Your task to perform on an android device: open app "Booking.com: Hotels and more" Image 0: 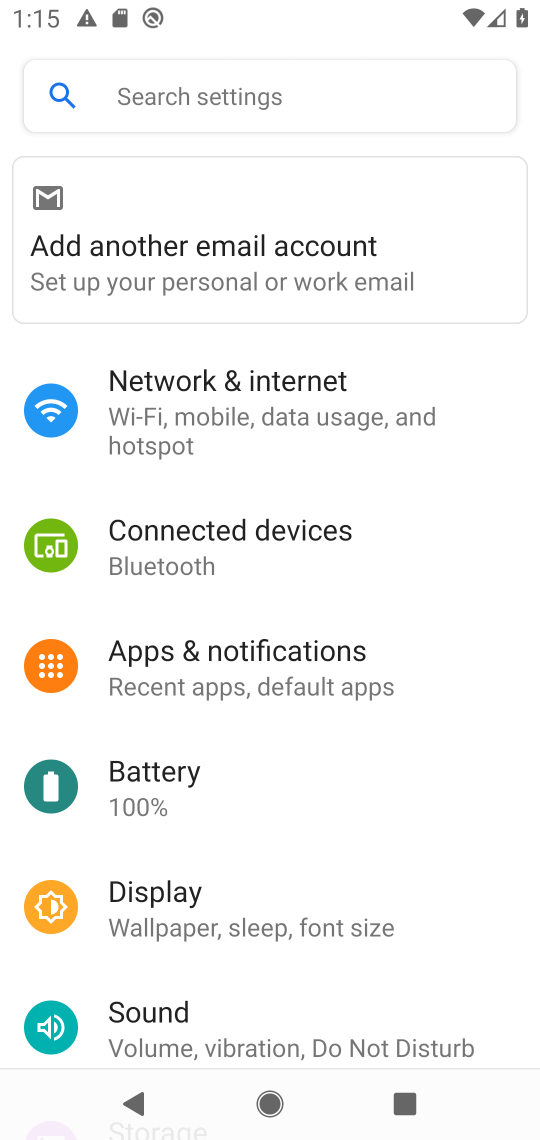
Step 0: press back button
Your task to perform on an android device: open app "Booking.com: Hotels and more" Image 1: 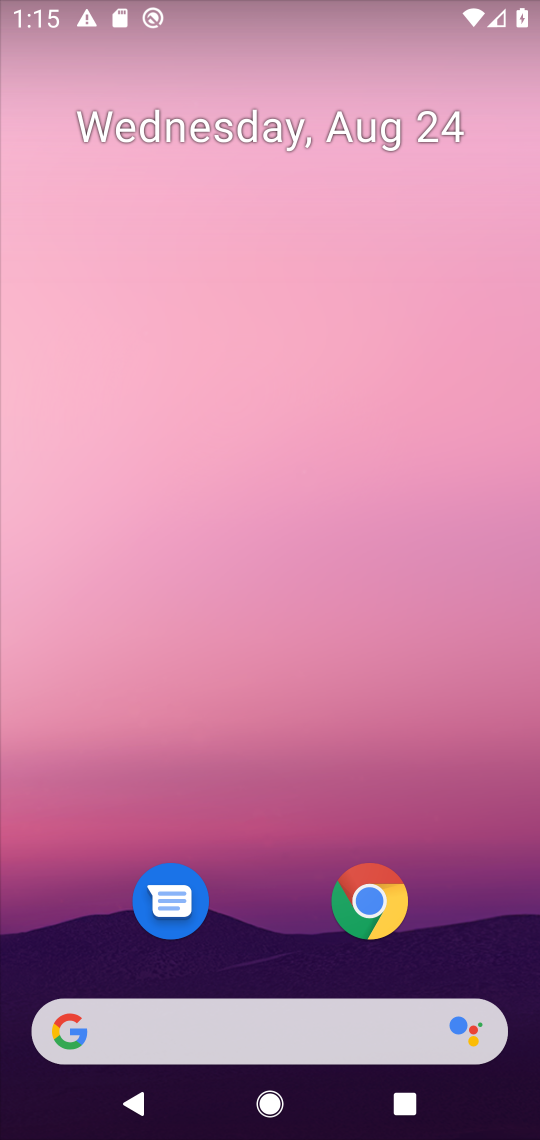
Step 1: drag from (285, 924) to (321, 25)
Your task to perform on an android device: open app "Booking.com: Hotels and more" Image 2: 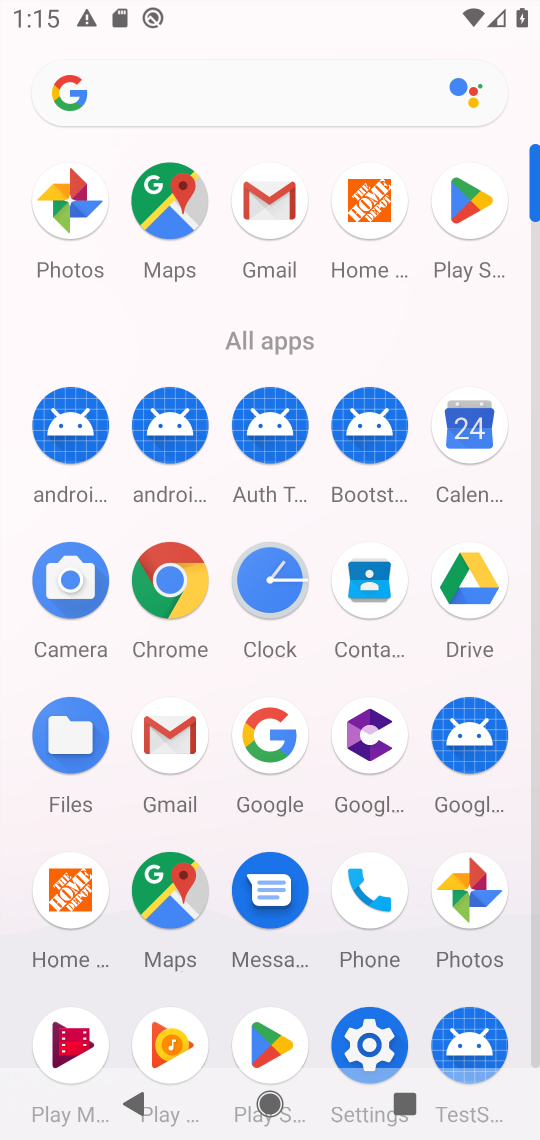
Step 2: click (463, 194)
Your task to perform on an android device: open app "Booking.com: Hotels and more" Image 3: 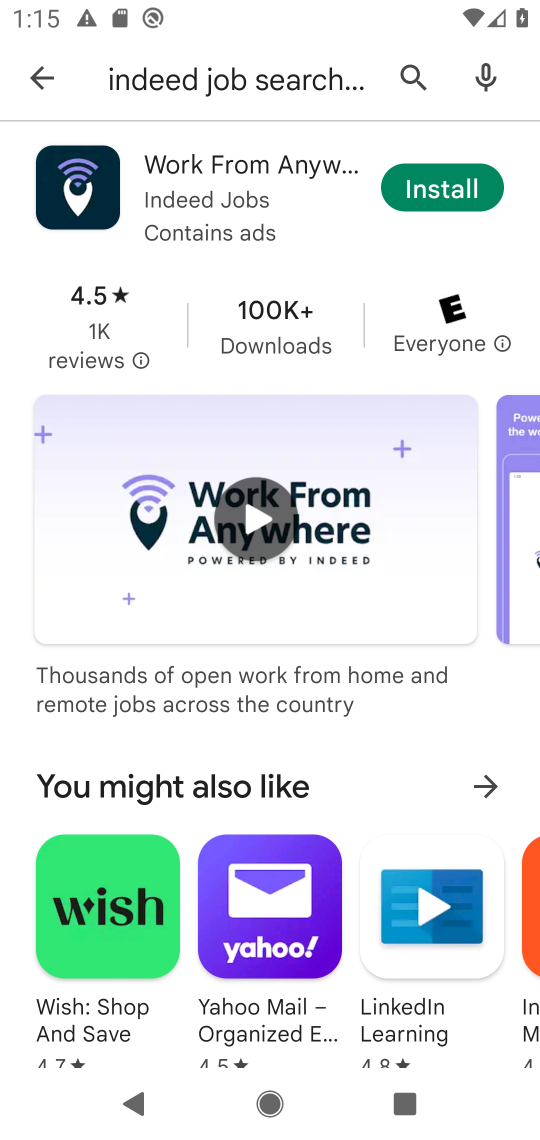
Step 3: click (420, 61)
Your task to perform on an android device: open app "Booking.com: Hotels and more" Image 4: 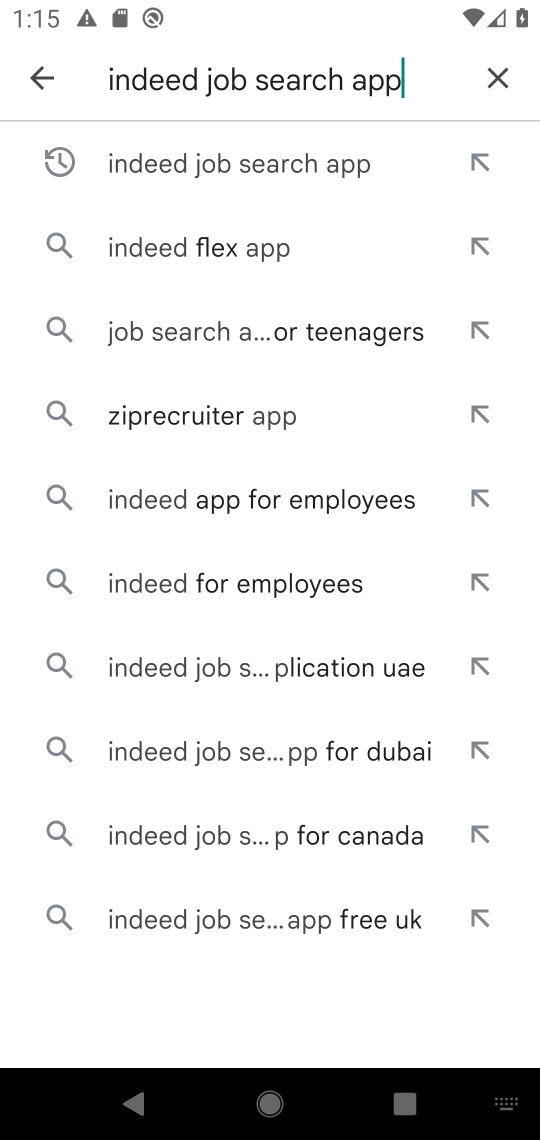
Step 4: click (497, 76)
Your task to perform on an android device: open app "Booking.com: Hotels and more" Image 5: 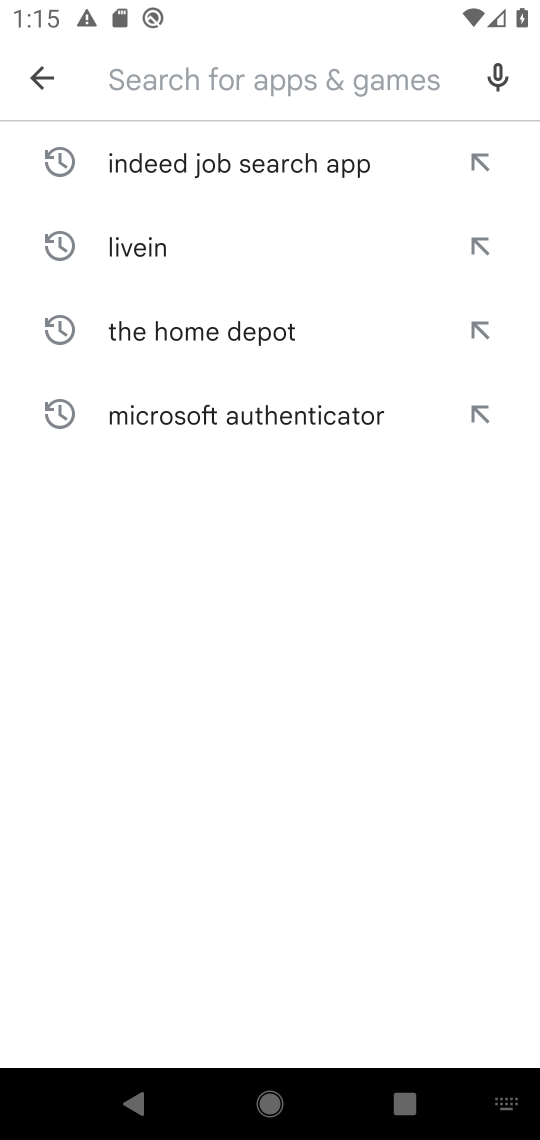
Step 5: click (166, 77)
Your task to perform on an android device: open app "Booking.com: Hotels and more" Image 6: 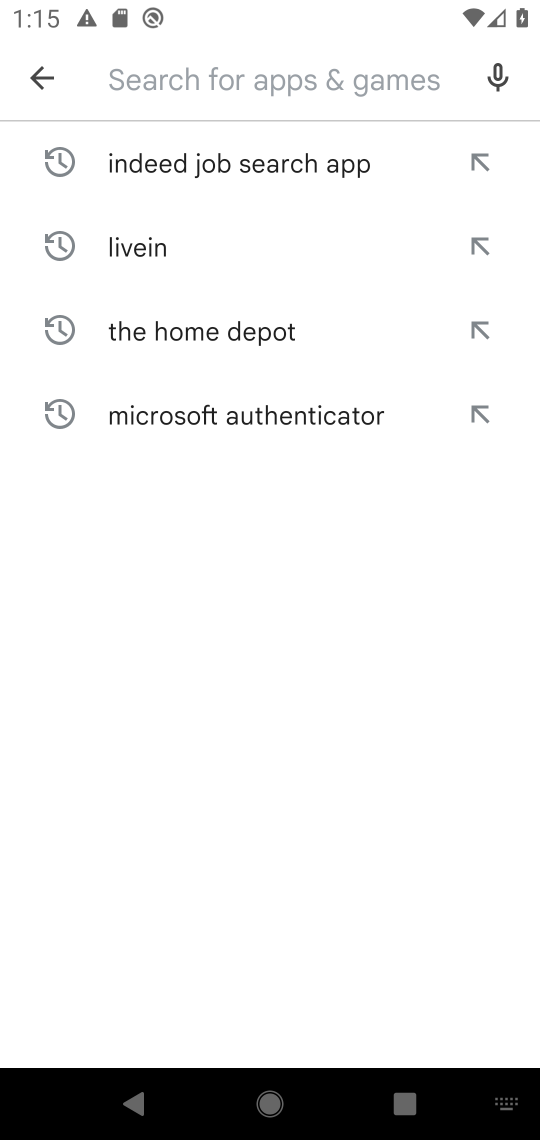
Step 6: type "Booking.com"
Your task to perform on an android device: open app "Booking.com: Hotels and more" Image 7: 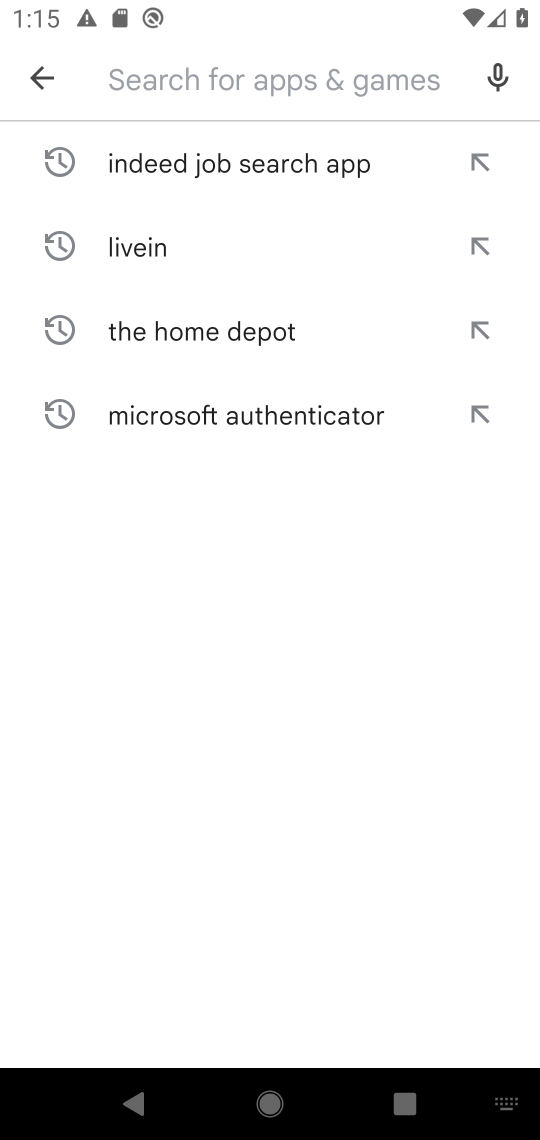
Step 7: click (332, 691)
Your task to perform on an android device: open app "Booking.com: Hotels and more" Image 8: 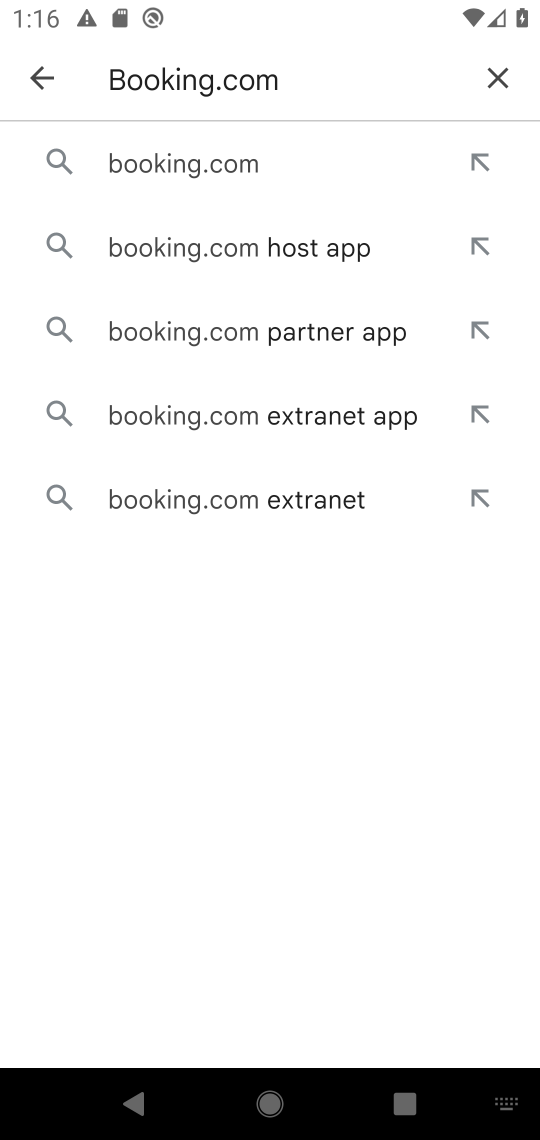
Step 8: click (295, 163)
Your task to perform on an android device: open app "Booking.com: Hotels and more" Image 9: 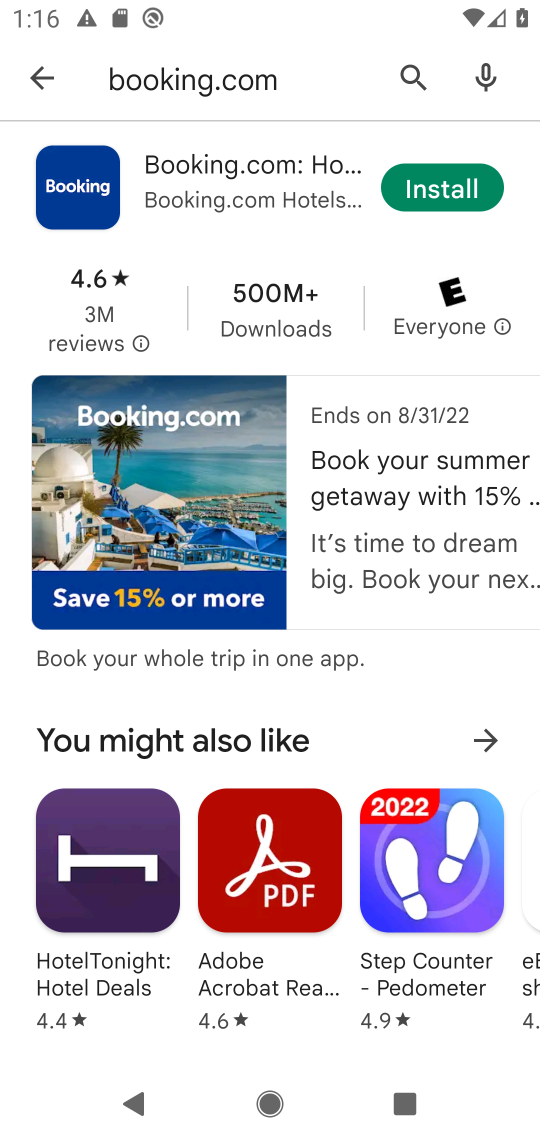
Step 9: task complete